Your task to perform on an android device: What's the weather? Image 0: 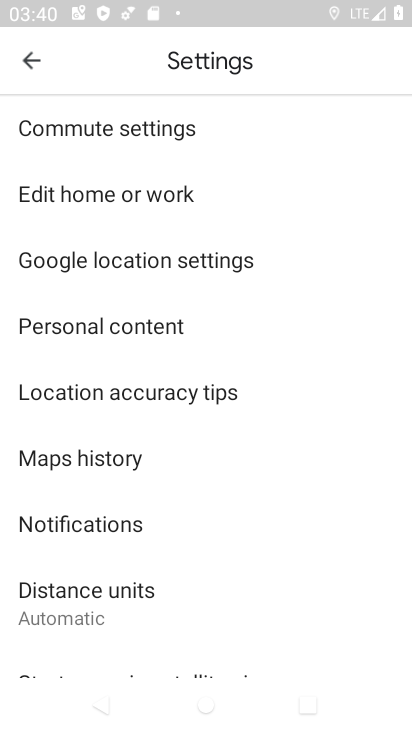
Step 0: press home button
Your task to perform on an android device: What's the weather? Image 1: 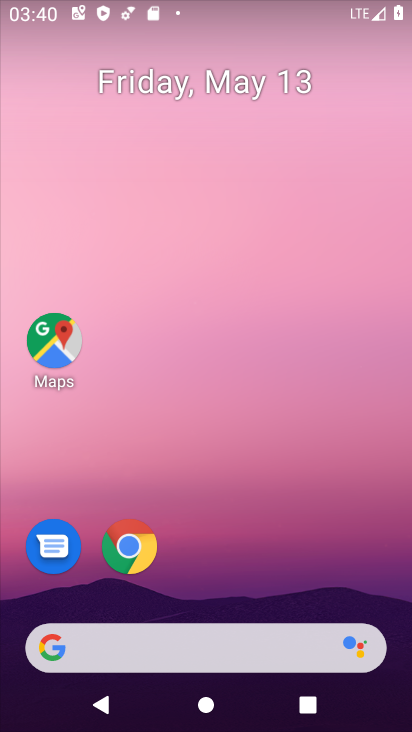
Step 1: click (213, 636)
Your task to perform on an android device: What's the weather? Image 2: 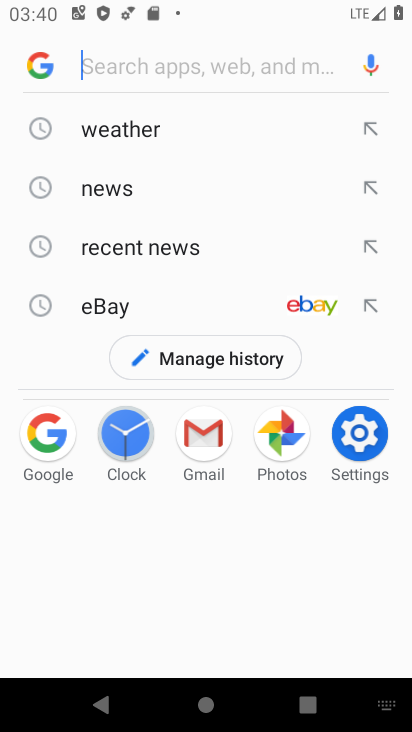
Step 2: click (201, 129)
Your task to perform on an android device: What's the weather? Image 3: 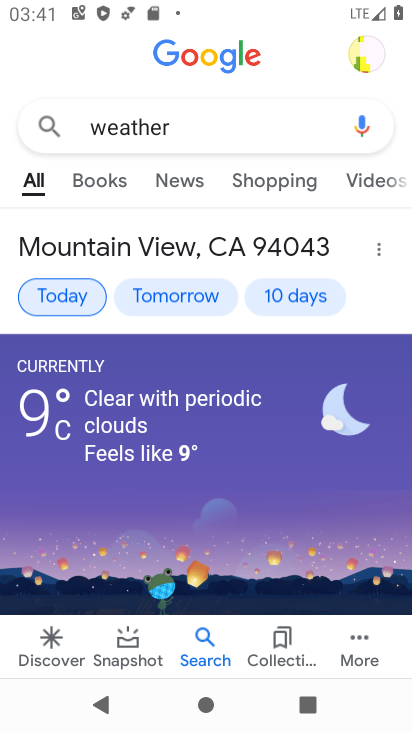
Step 3: task complete